Your task to perform on an android device: turn off airplane mode Image 0: 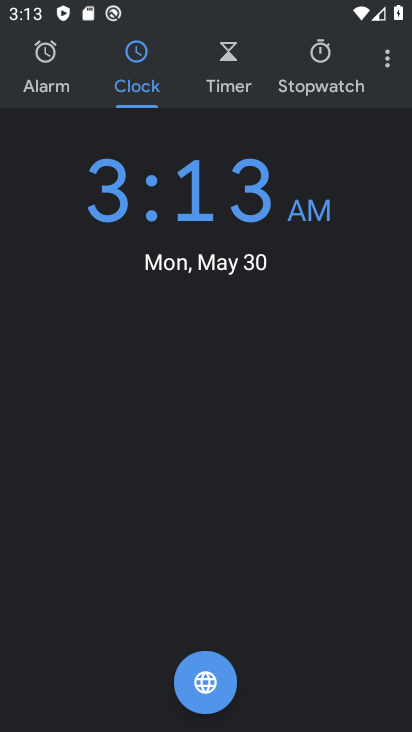
Step 0: press home button
Your task to perform on an android device: turn off airplane mode Image 1: 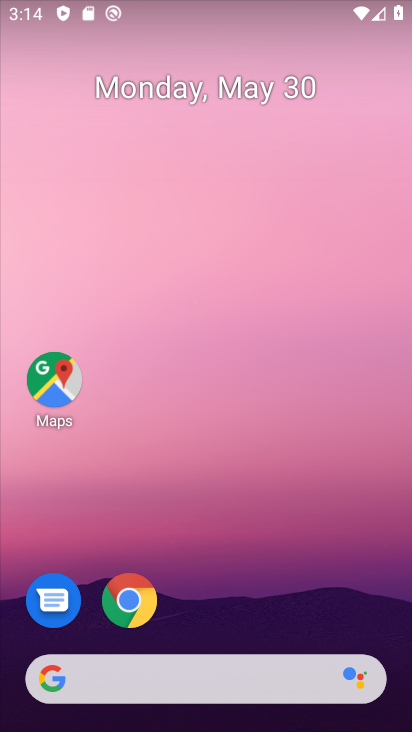
Step 1: drag from (301, 611) to (216, 63)
Your task to perform on an android device: turn off airplane mode Image 2: 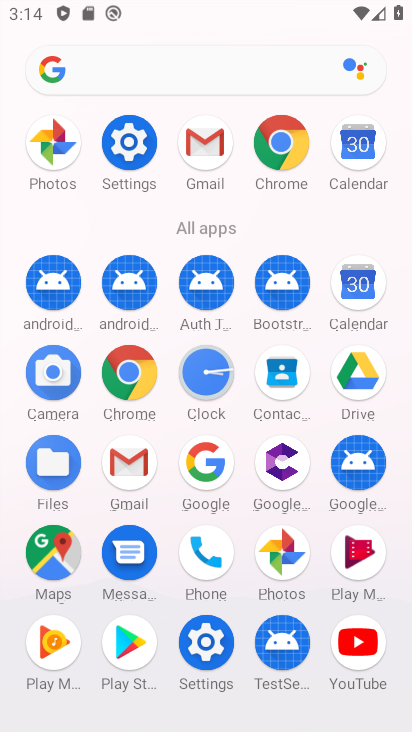
Step 2: click (132, 133)
Your task to perform on an android device: turn off airplane mode Image 3: 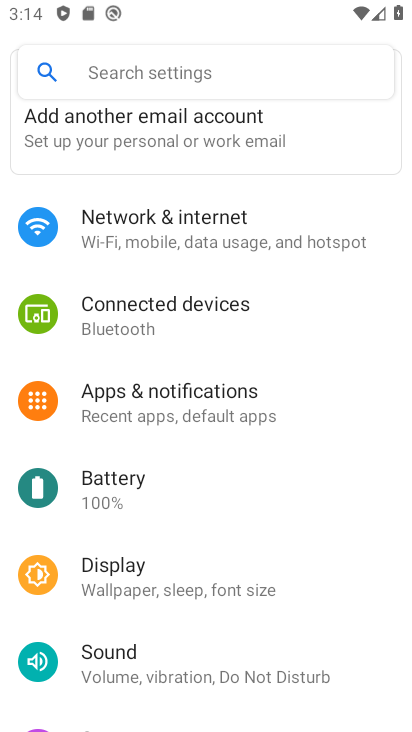
Step 3: click (157, 222)
Your task to perform on an android device: turn off airplane mode Image 4: 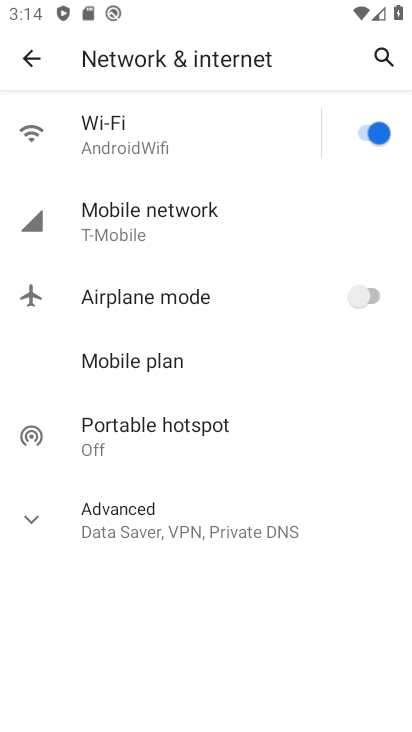
Step 4: task complete